Your task to perform on an android device: change keyboard looks Image 0: 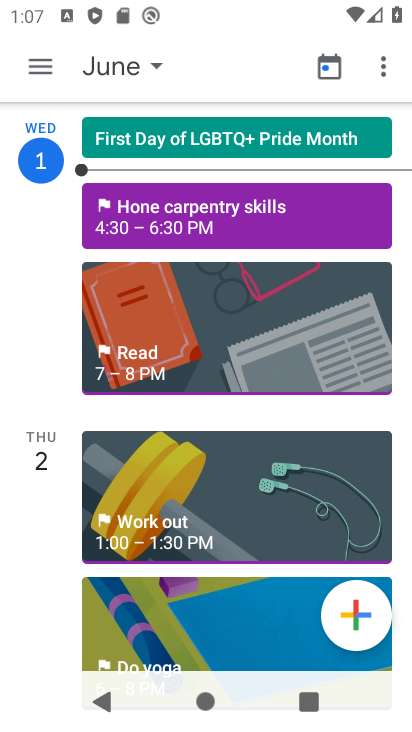
Step 0: press home button
Your task to perform on an android device: change keyboard looks Image 1: 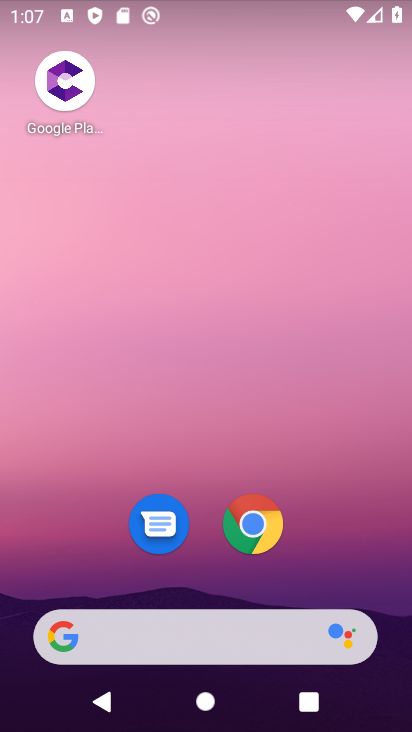
Step 1: drag from (119, 499) to (151, 61)
Your task to perform on an android device: change keyboard looks Image 2: 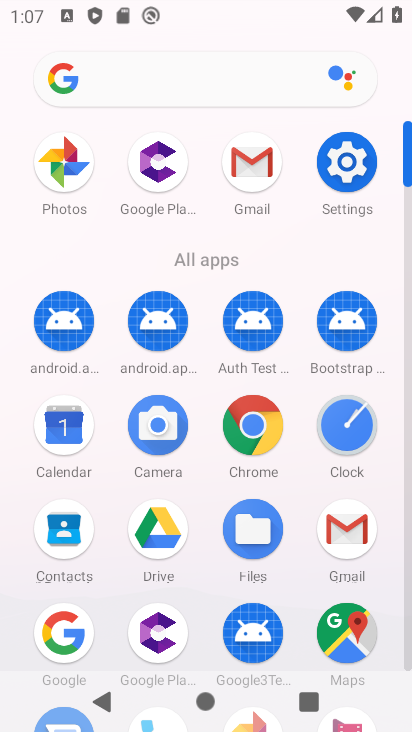
Step 2: click (334, 160)
Your task to perform on an android device: change keyboard looks Image 3: 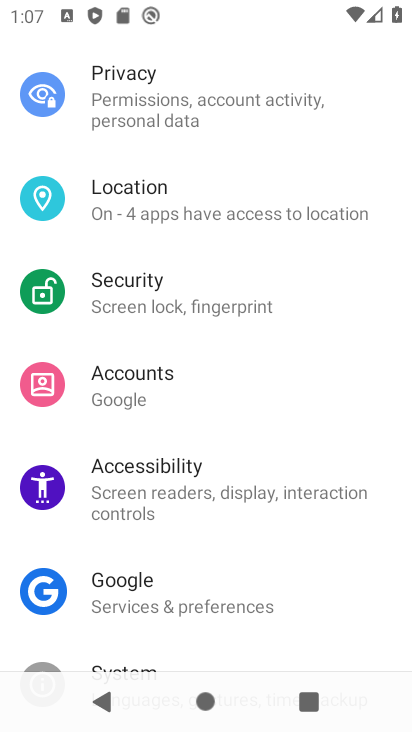
Step 3: drag from (254, 542) to (286, 348)
Your task to perform on an android device: change keyboard looks Image 4: 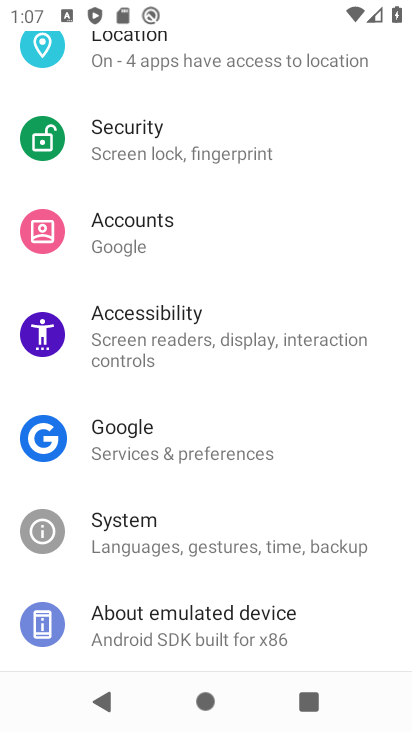
Step 4: click (217, 527)
Your task to perform on an android device: change keyboard looks Image 5: 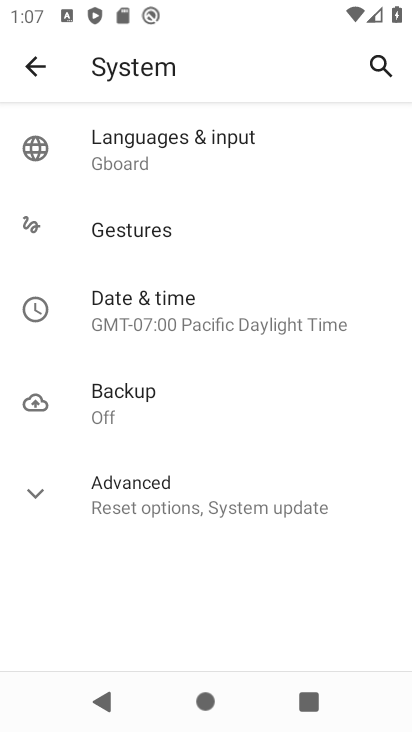
Step 5: click (174, 153)
Your task to perform on an android device: change keyboard looks Image 6: 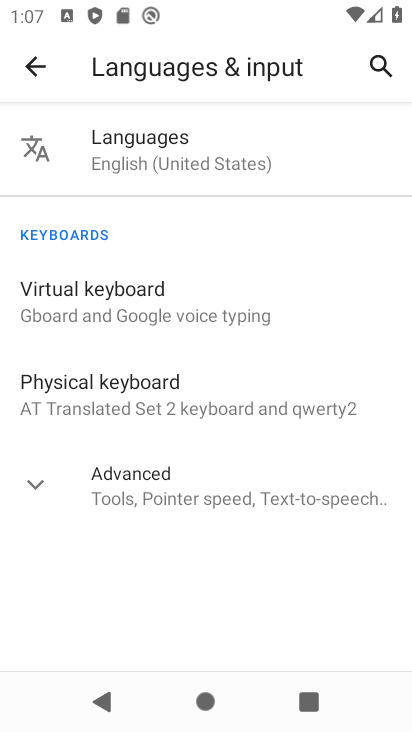
Step 6: click (156, 306)
Your task to perform on an android device: change keyboard looks Image 7: 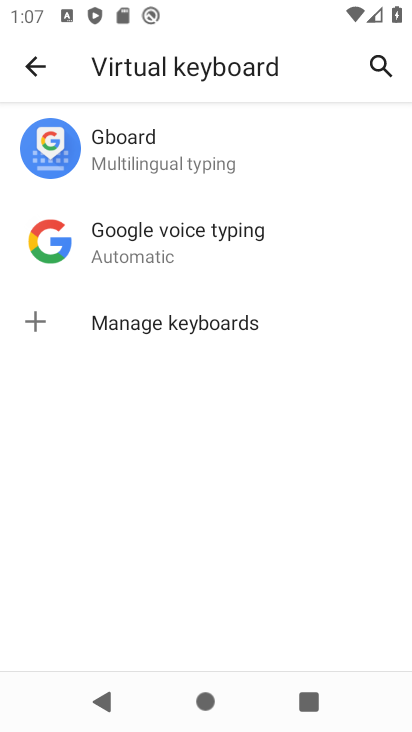
Step 7: click (161, 157)
Your task to perform on an android device: change keyboard looks Image 8: 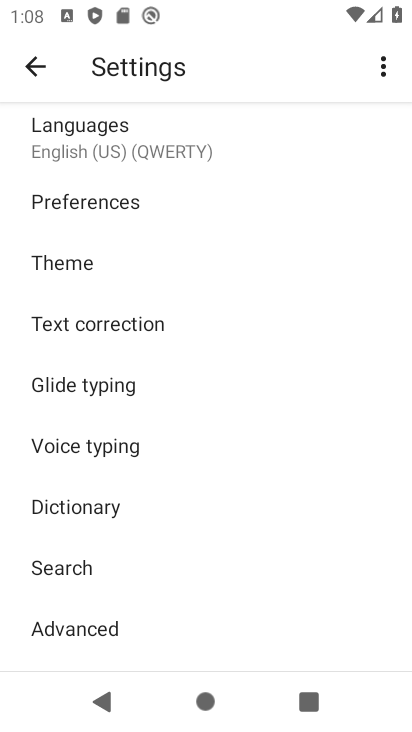
Step 8: click (125, 253)
Your task to perform on an android device: change keyboard looks Image 9: 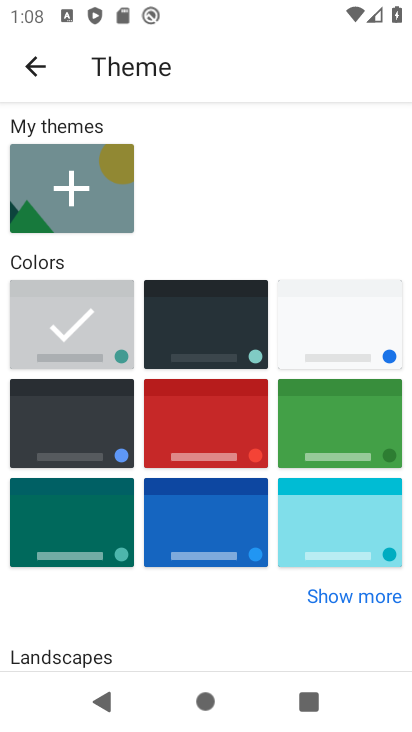
Step 9: click (173, 435)
Your task to perform on an android device: change keyboard looks Image 10: 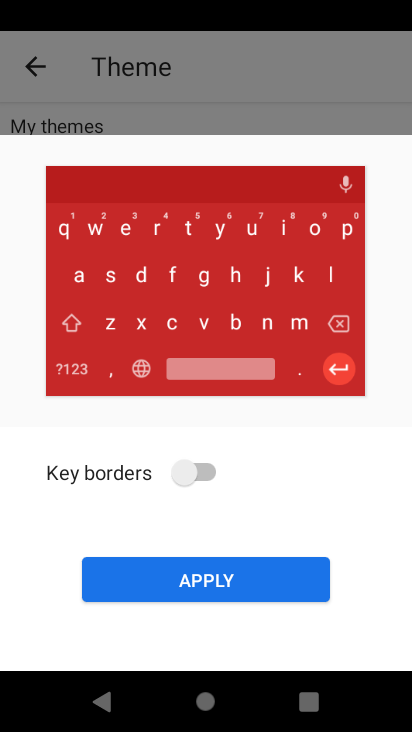
Step 10: click (212, 468)
Your task to perform on an android device: change keyboard looks Image 11: 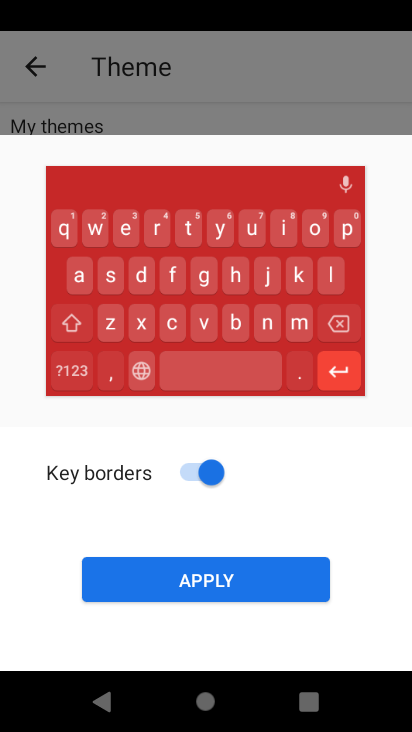
Step 11: click (217, 583)
Your task to perform on an android device: change keyboard looks Image 12: 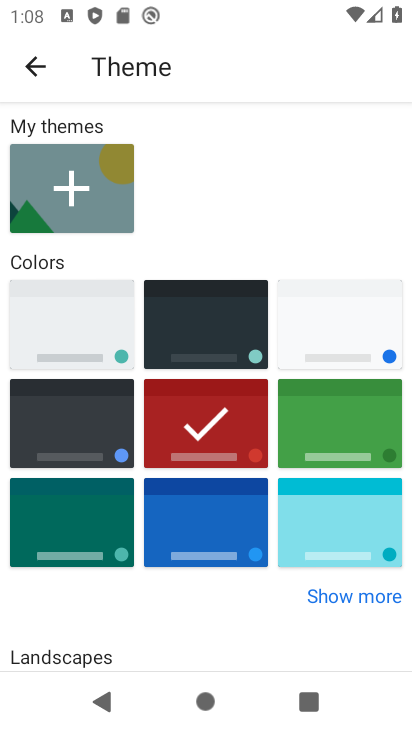
Step 12: task complete